Your task to perform on an android device: turn on notifications settings in the gmail app Image 0: 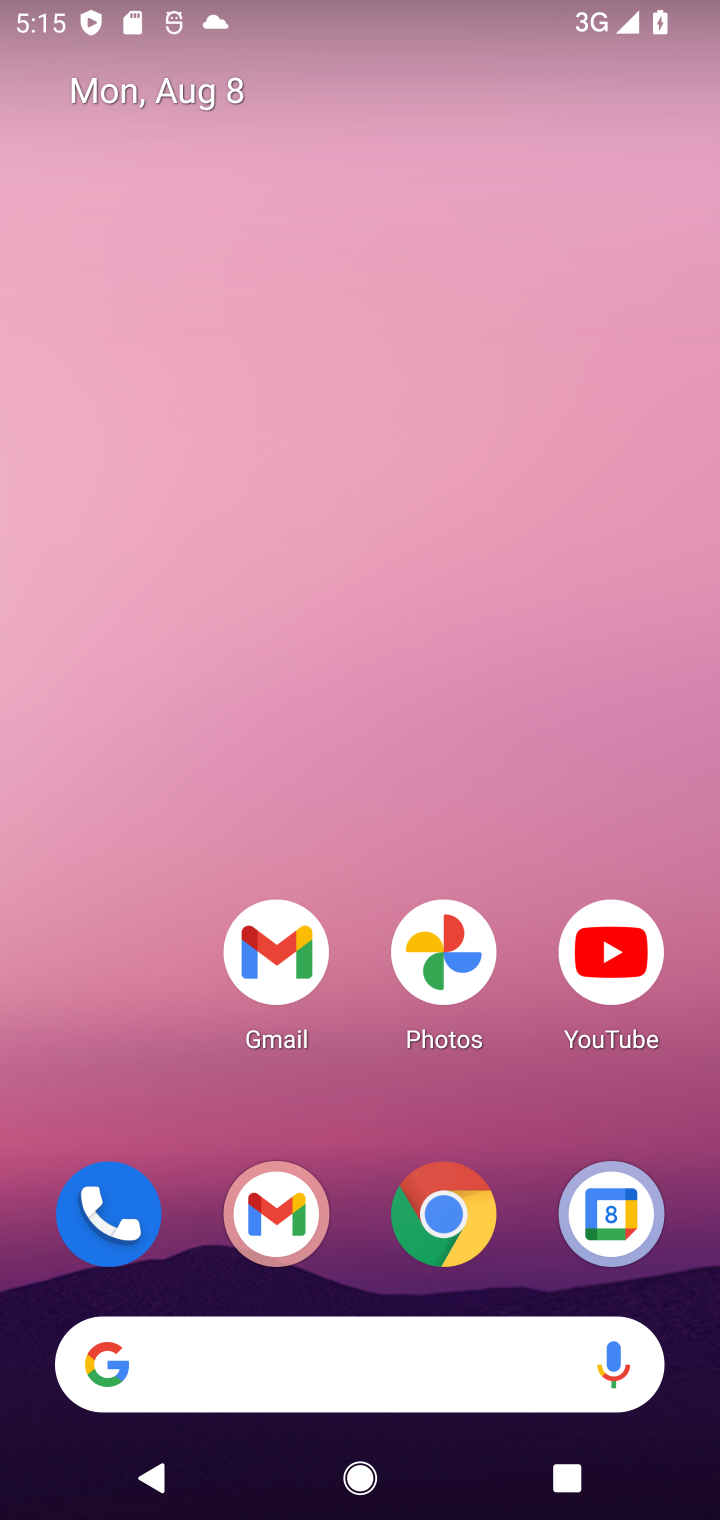
Step 0: drag from (378, 1076) to (373, 87)
Your task to perform on an android device: turn on notifications settings in the gmail app Image 1: 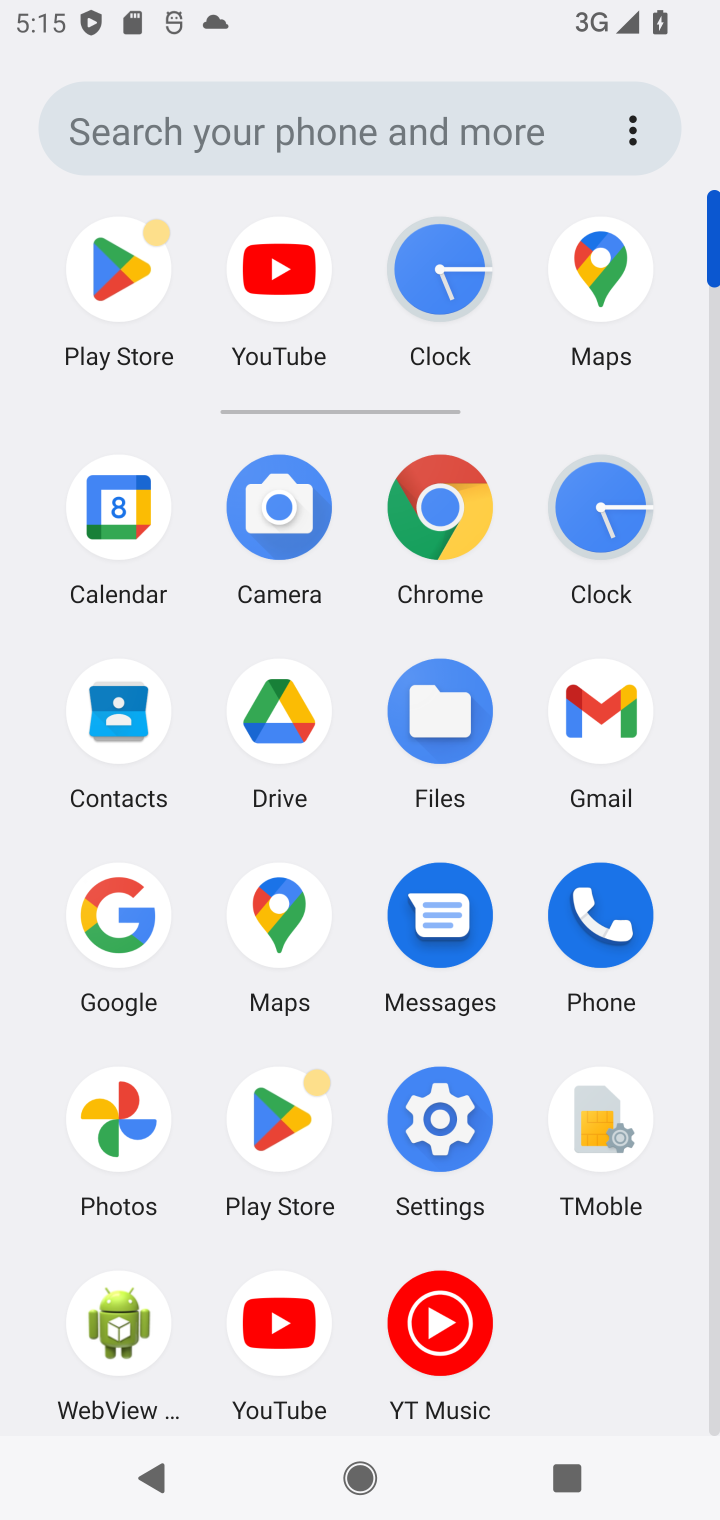
Step 1: click (432, 1128)
Your task to perform on an android device: turn on notifications settings in the gmail app Image 2: 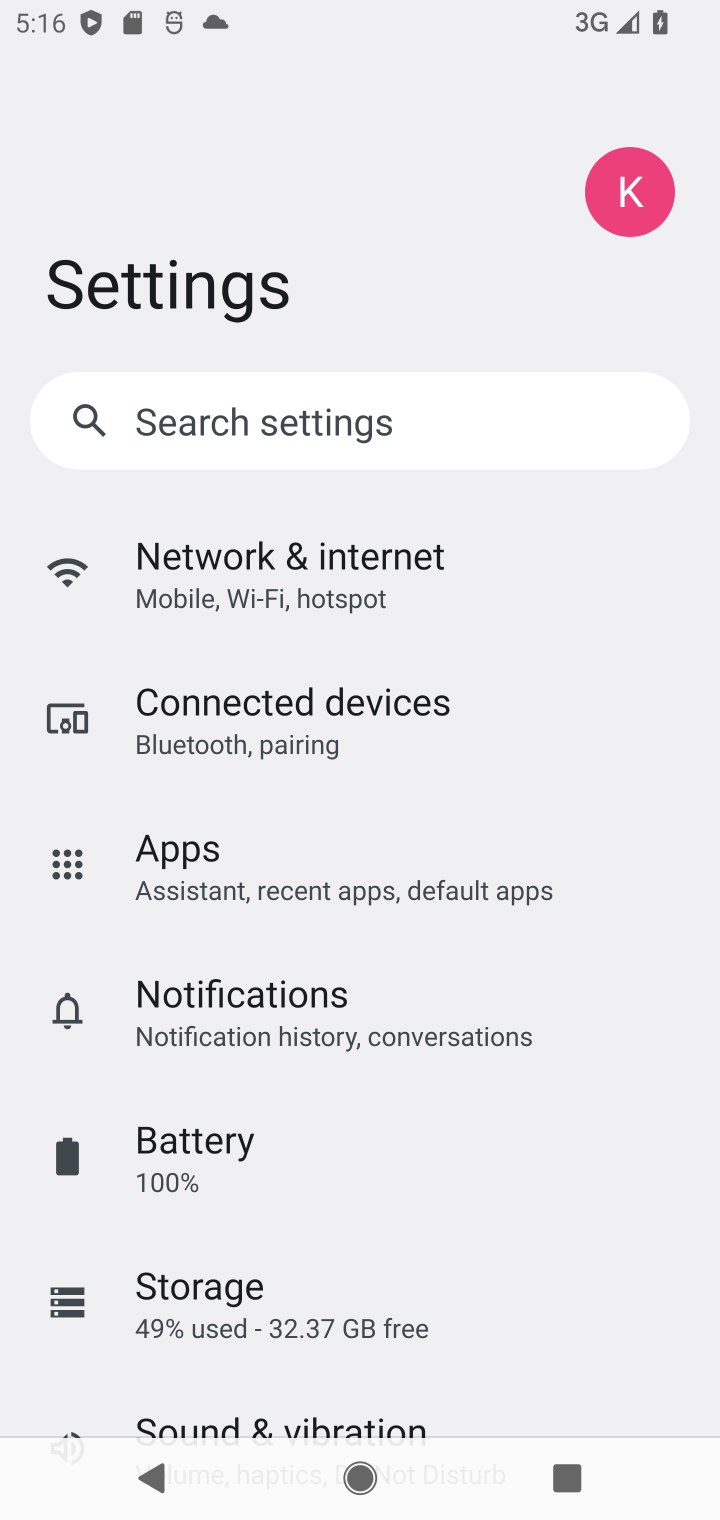
Step 2: click (221, 1009)
Your task to perform on an android device: turn on notifications settings in the gmail app Image 3: 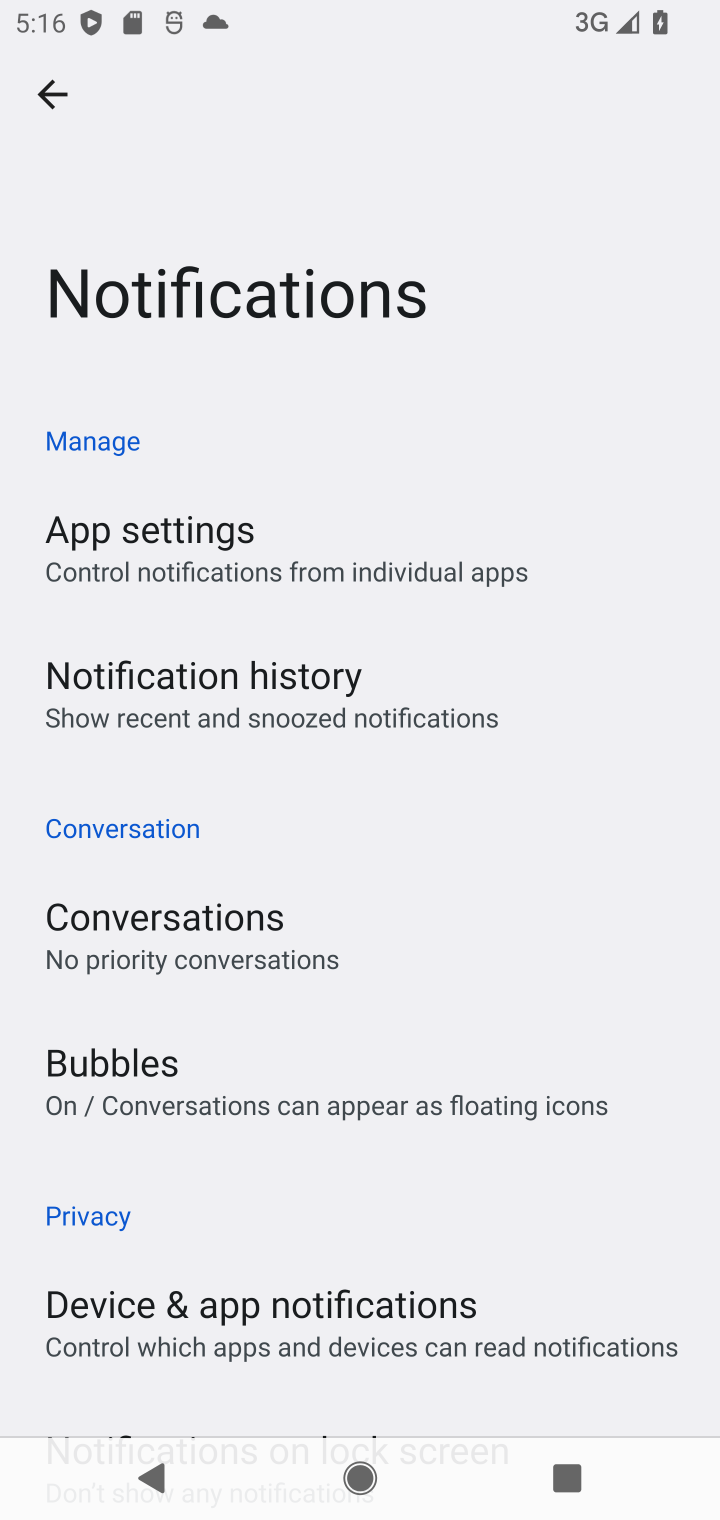
Step 3: press home button
Your task to perform on an android device: turn on notifications settings in the gmail app Image 4: 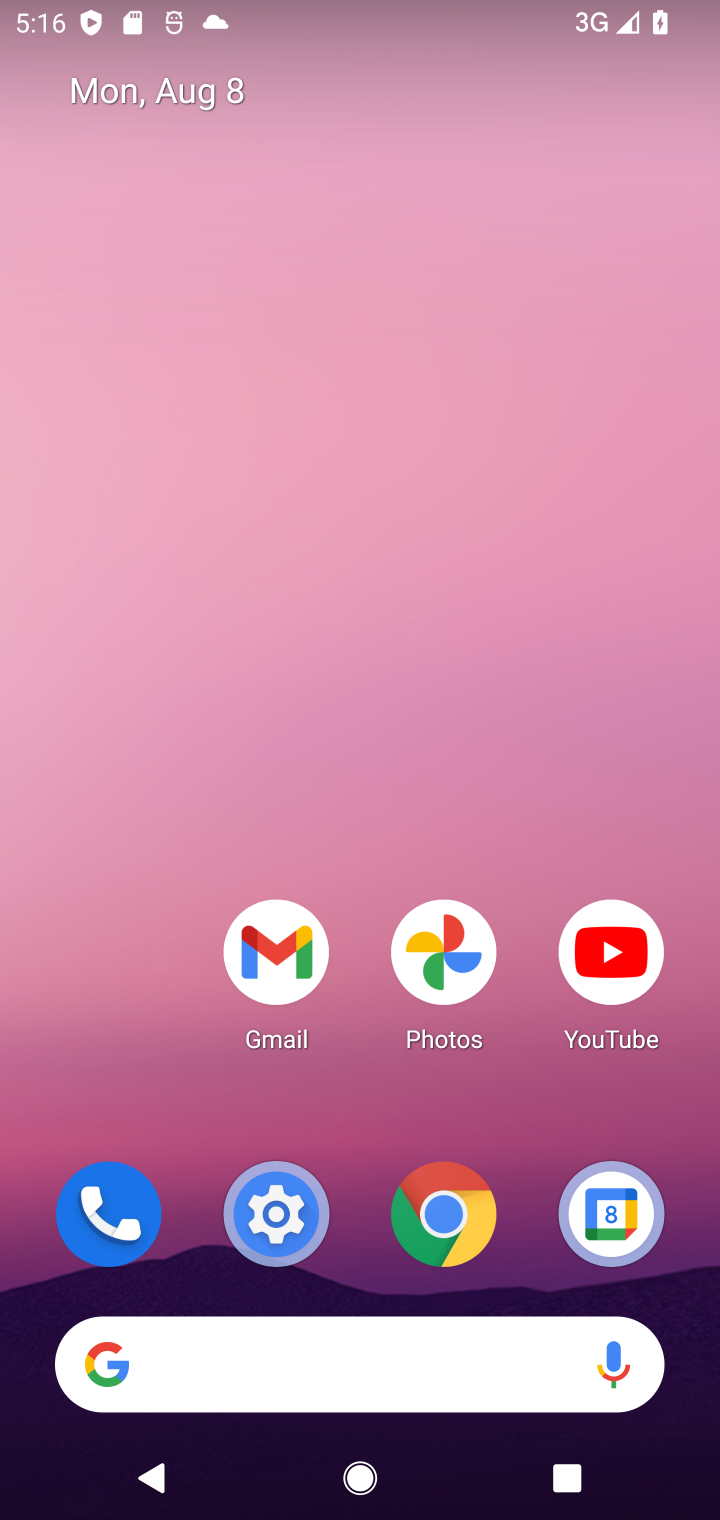
Step 4: drag from (372, 1187) to (395, 101)
Your task to perform on an android device: turn on notifications settings in the gmail app Image 5: 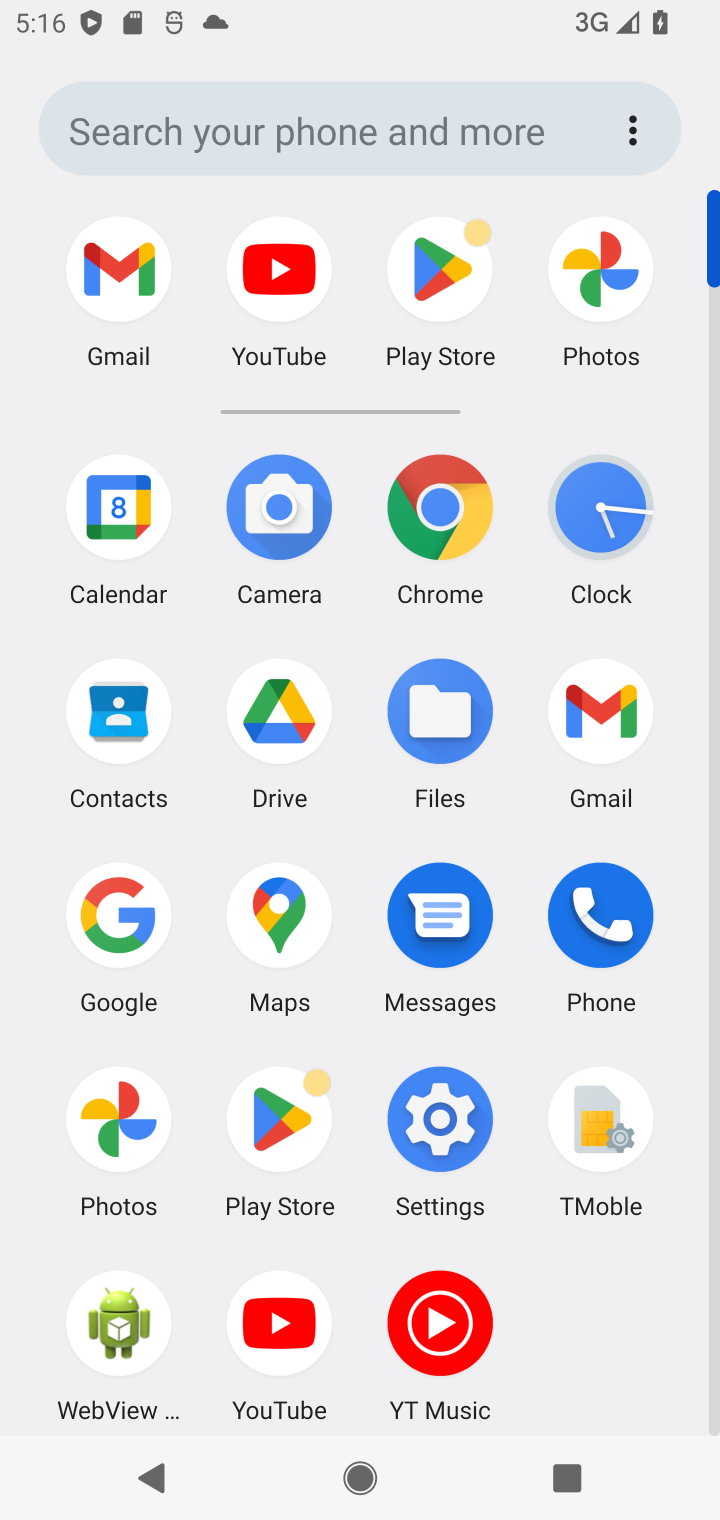
Step 5: click (589, 713)
Your task to perform on an android device: turn on notifications settings in the gmail app Image 6: 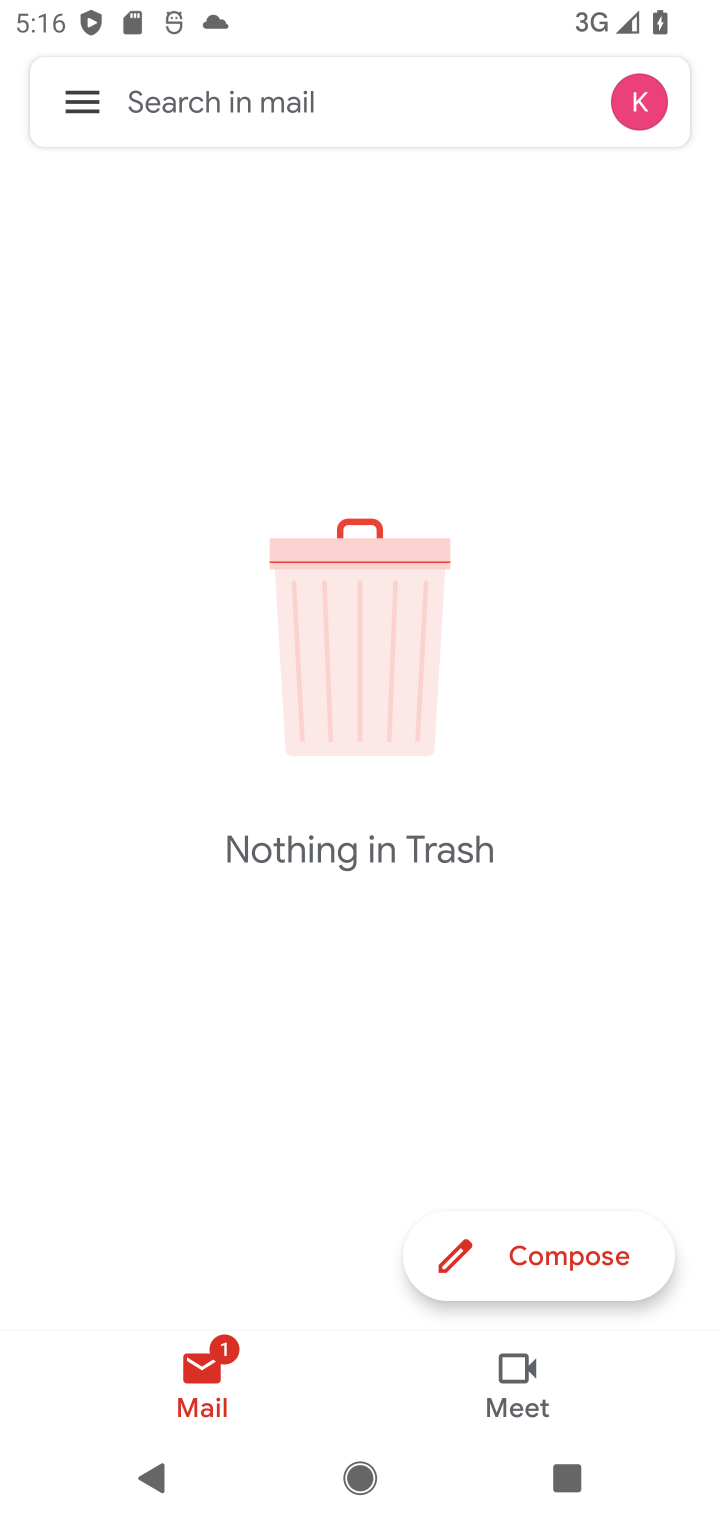
Step 6: click (73, 96)
Your task to perform on an android device: turn on notifications settings in the gmail app Image 7: 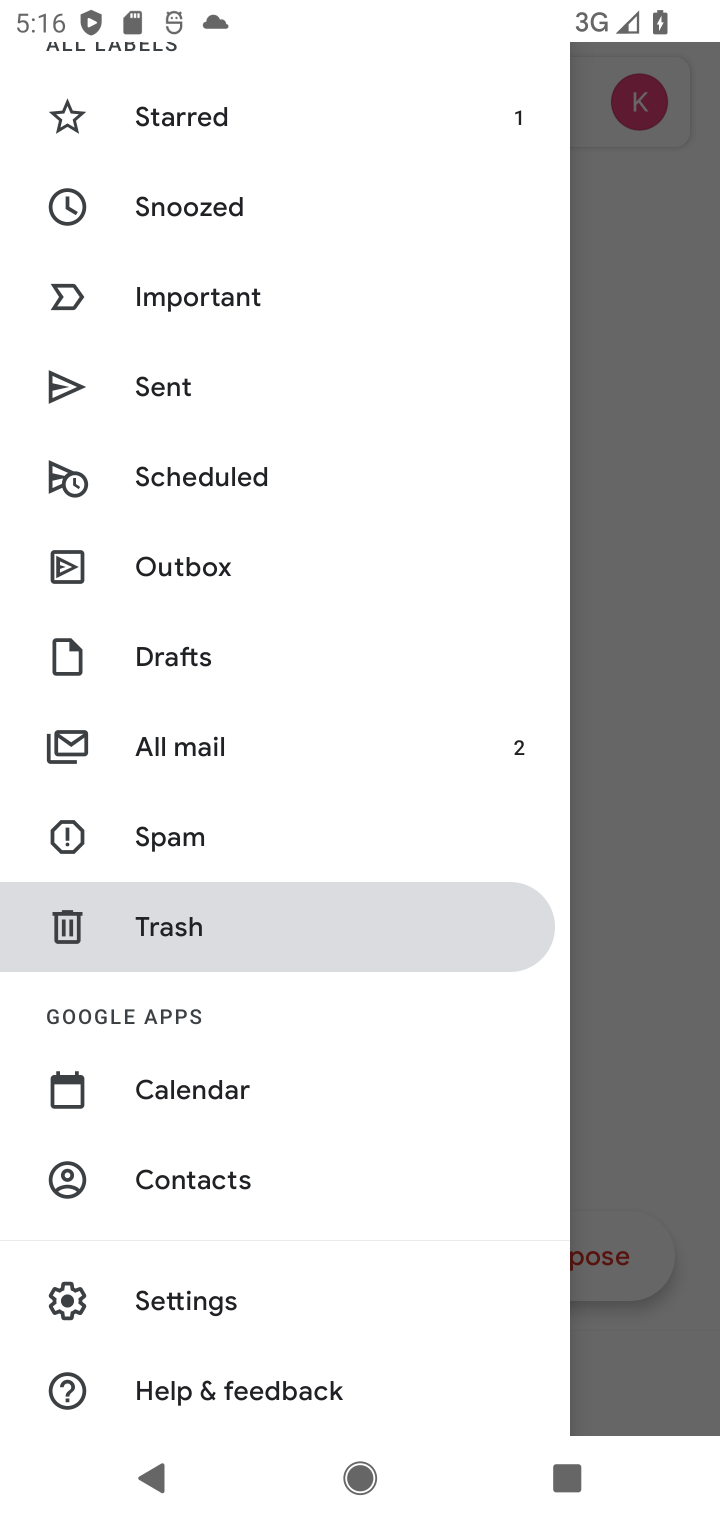
Step 7: click (164, 1302)
Your task to perform on an android device: turn on notifications settings in the gmail app Image 8: 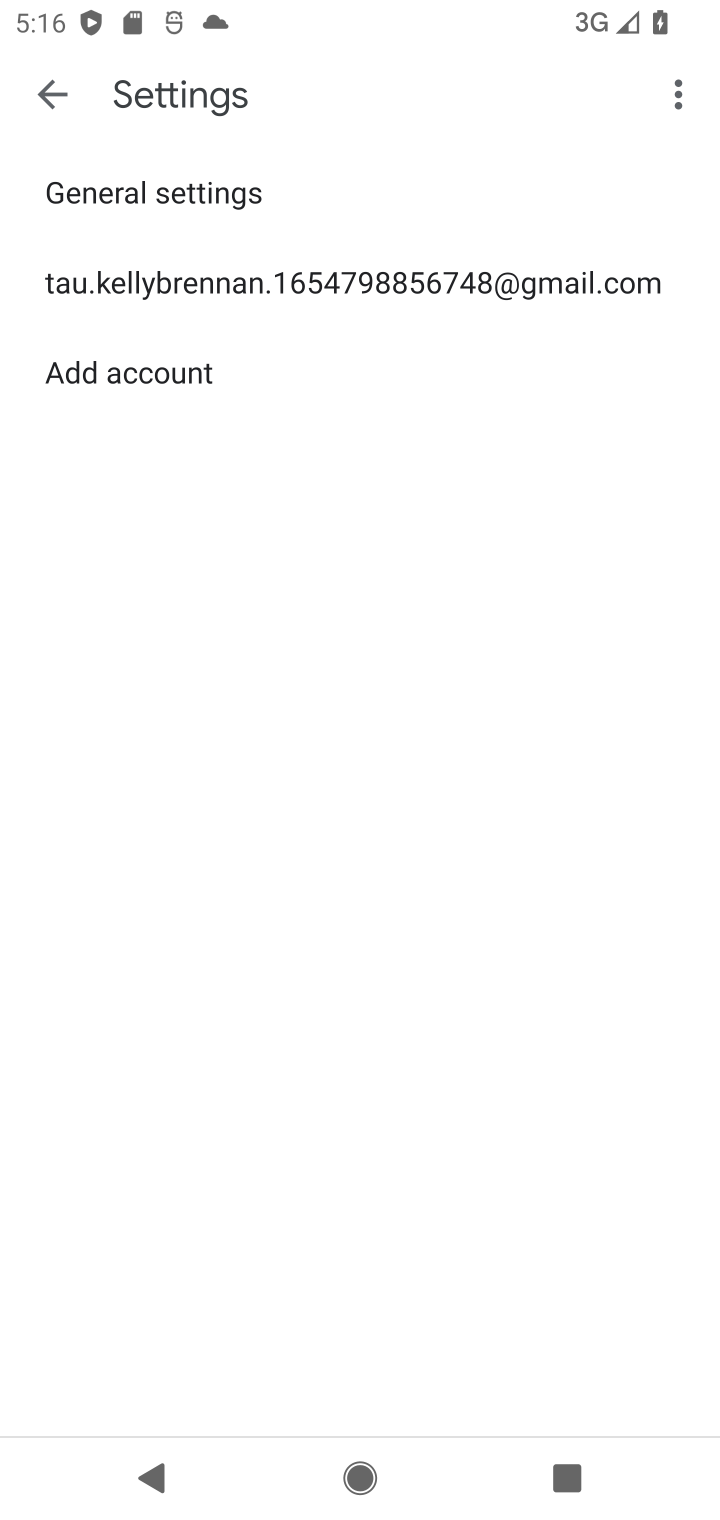
Step 8: click (219, 286)
Your task to perform on an android device: turn on notifications settings in the gmail app Image 9: 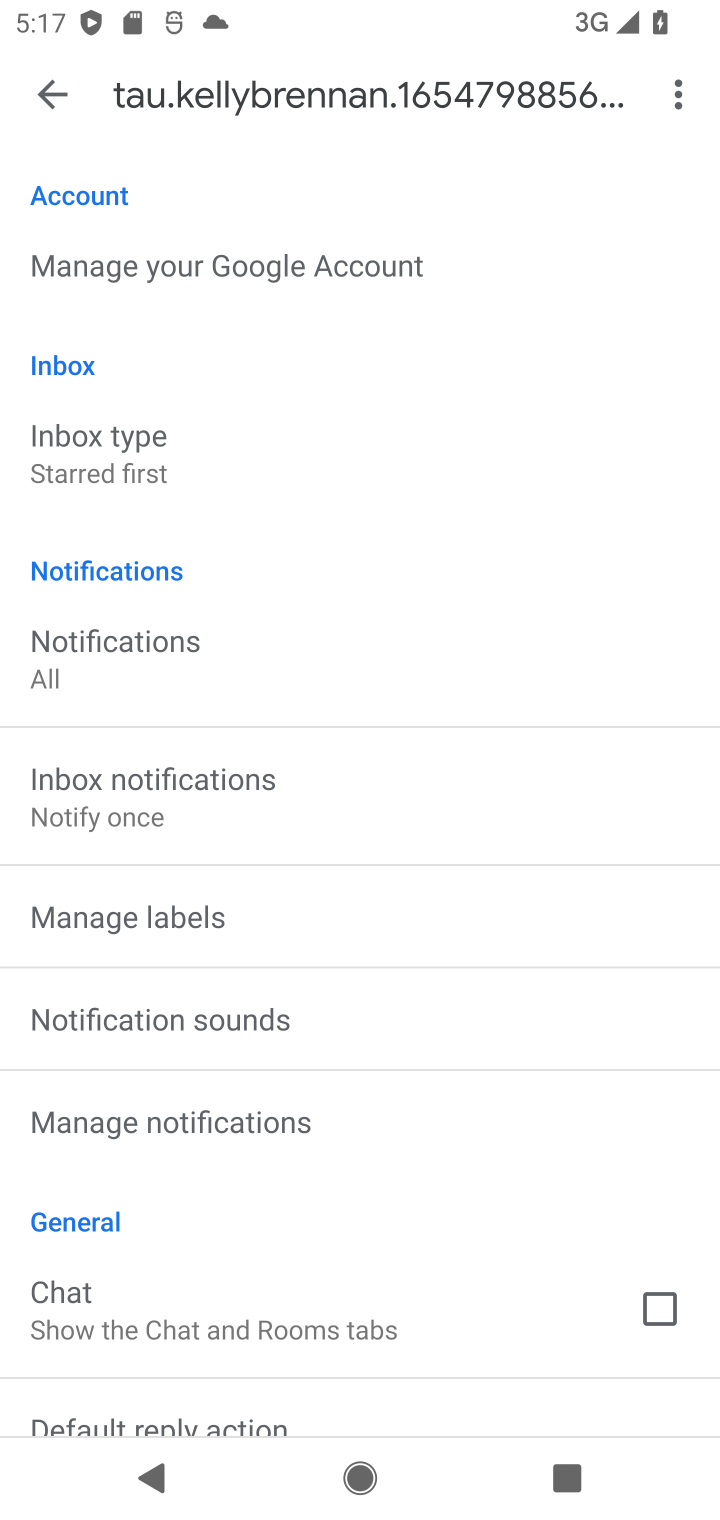
Step 9: task complete